Your task to perform on an android device: Is it going to rain this weekend? Image 0: 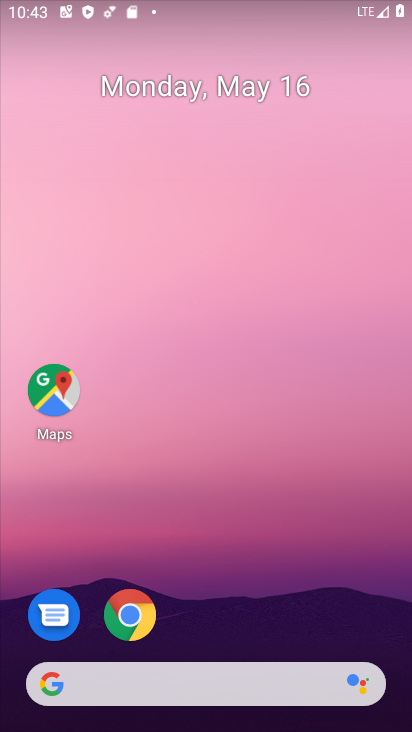
Step 0: drag from (192, 20) to (77, 670)
Your task to perform on an android device: Is it going to rain this weekend? Image 1: 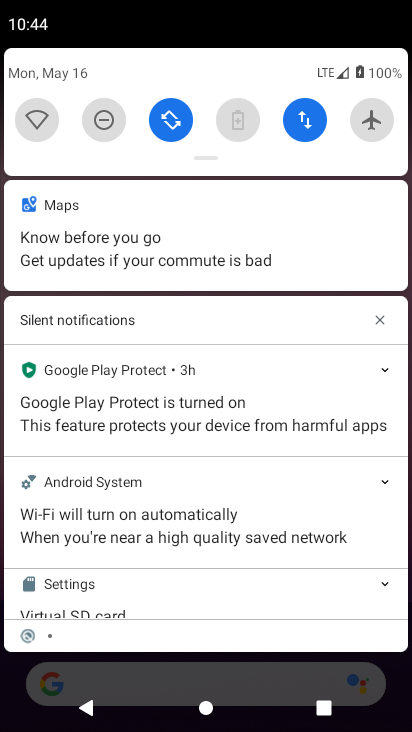
Step 1: press home button
Your task to perform on an android device: Is it going to rain this weekend? Image 2: 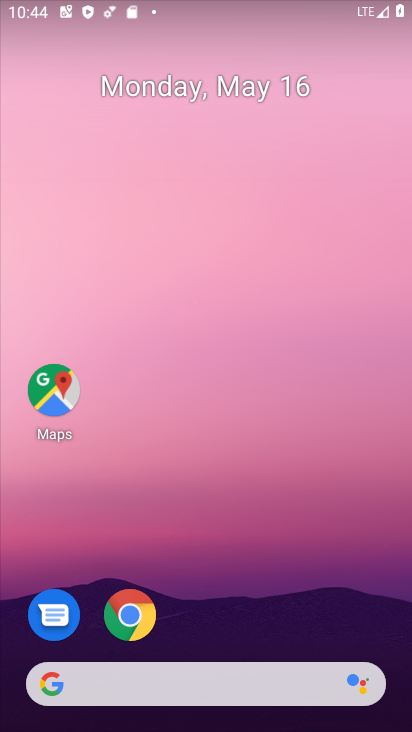
Step 2: drag from (206, 582) to (231, 265)
Your task to perform on an android device: Is it going to rain this weekend? Image 3: 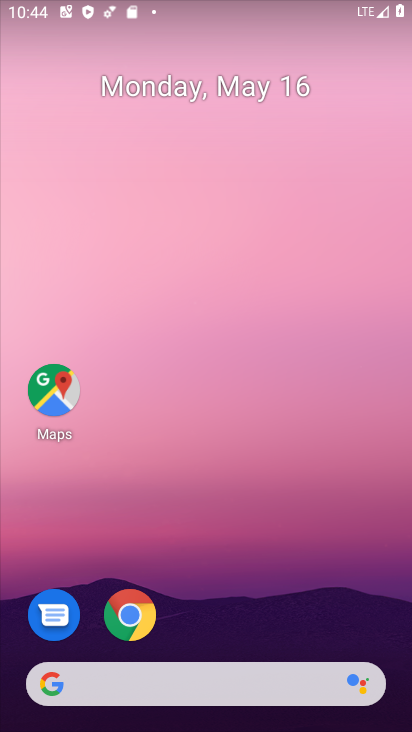
Step 3: drag from (197, 698) to (219, 136)
Your task to perform on an android device: Is it going to rain this weekend? Image 4: 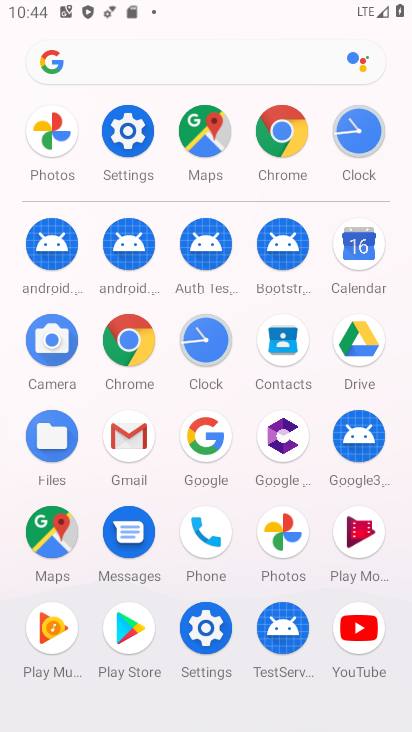
Step 4: click (215, 449)
Your task to perform on an android device: Is it going to rain this weekend? Image 5: 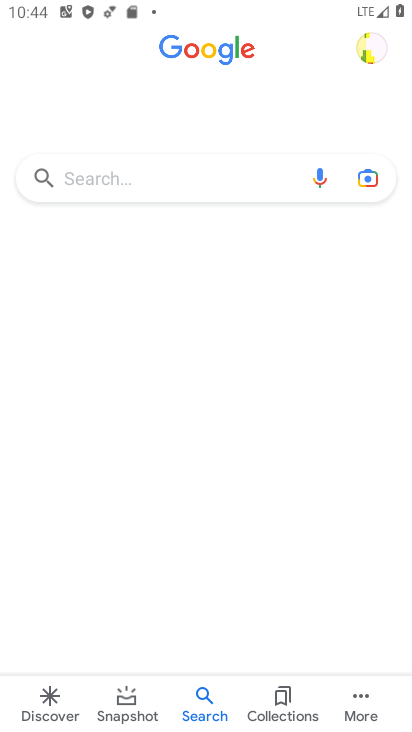
Step 5: click (217, 185)
Your task to perform on an android device: Is it going to rain this weekend? Image 6: 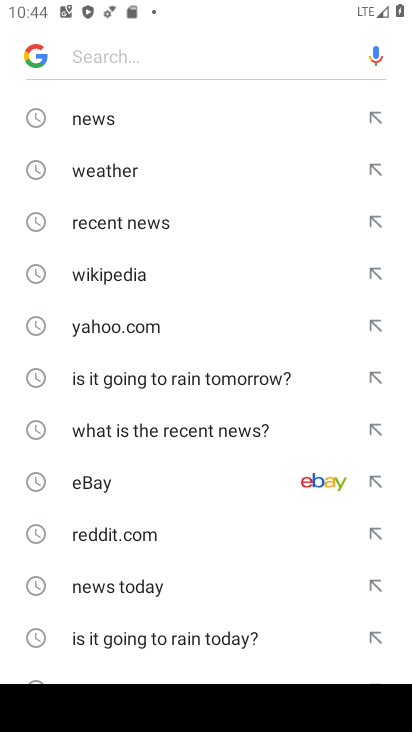
Step 6: click (180, 169)
Your task to perform on an android device: Is it going to rain this weekend? Image 7: 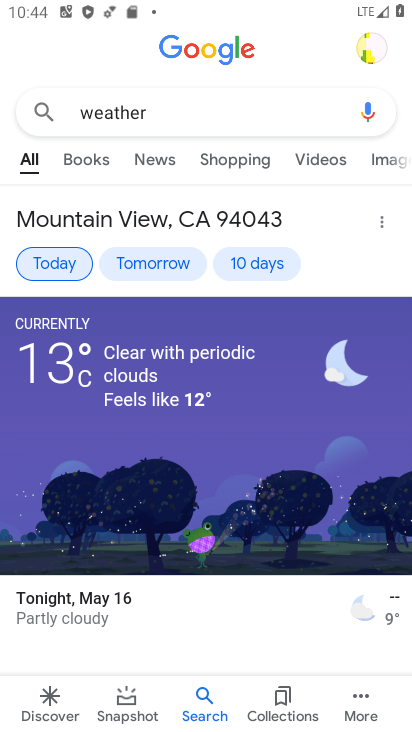
Step 7: drag from (188, 546) to (199, 357)
Your task to perform on an android device: Is it going to rain this weekend? Image 8: 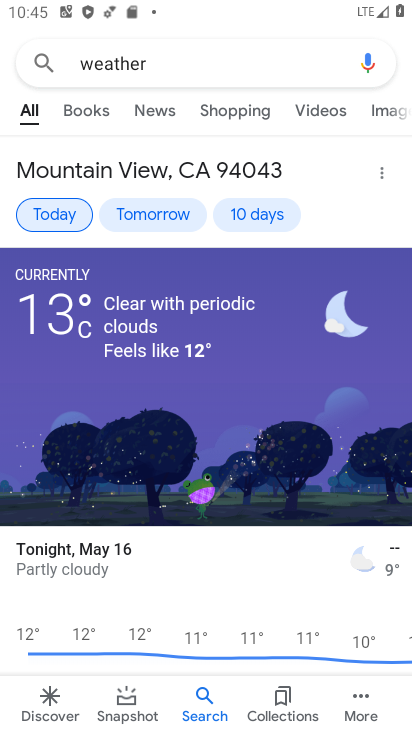
Step 8: drag from (241, 559) to (248, 396)
Your task to perform on an android device: Is it going to rain this weekend? Image 9: 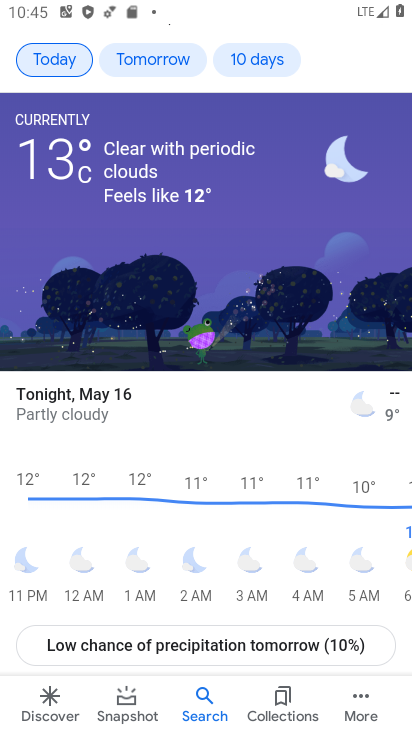
Step 9: drag from (183, 555) to (220, 269)
Your task to perform on an android device: Is it going to rain this weekend? Image 10: 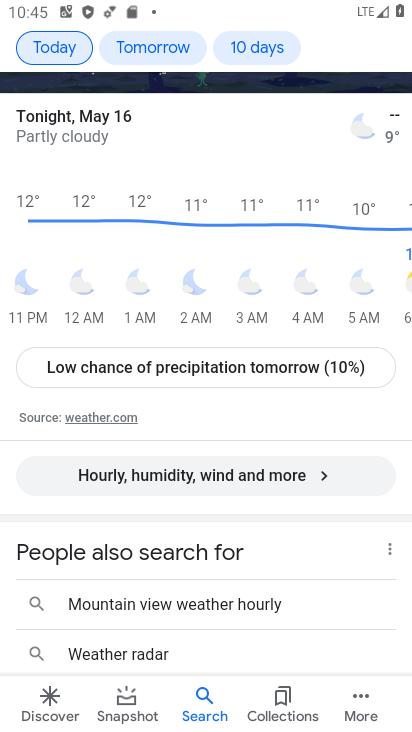
Step 10: drag from (279, 468) to (234, 715)
Your task to perform on an android device: Is it going to rain this weekend? Image 11: 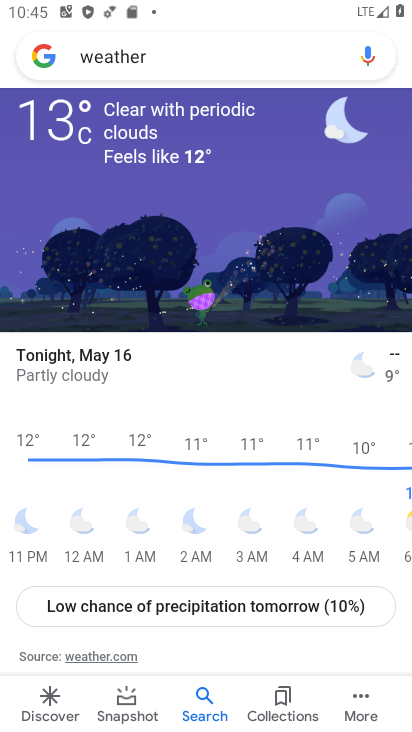
Step 11: drag from (199, 396) to (200, 645)
Your task to perform on an android device: Is it going to rain this weekend? Image 12: 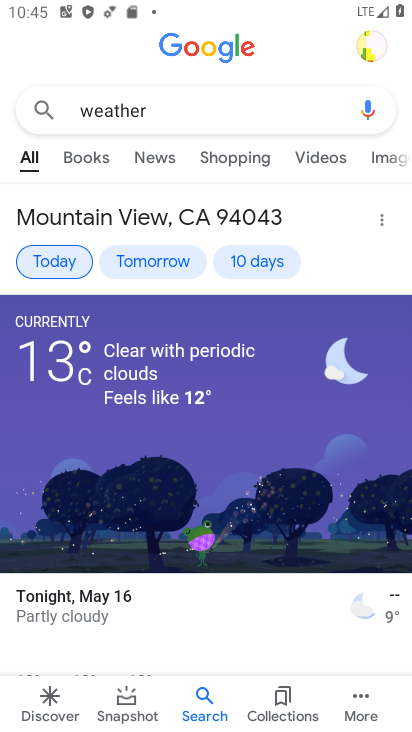
Step 12: click (256, 261)
Your task to perform on an android device: Is it going to rain this weekend? Image 13: 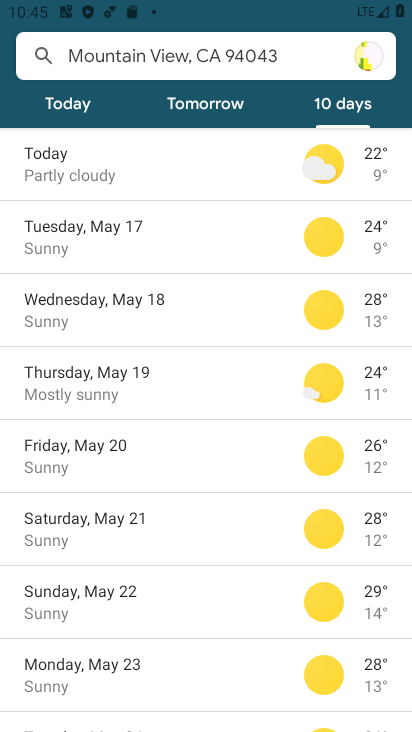
Step 13: task complete